Your task to perform on an android device: Find coffee shops on Maps Image 0: 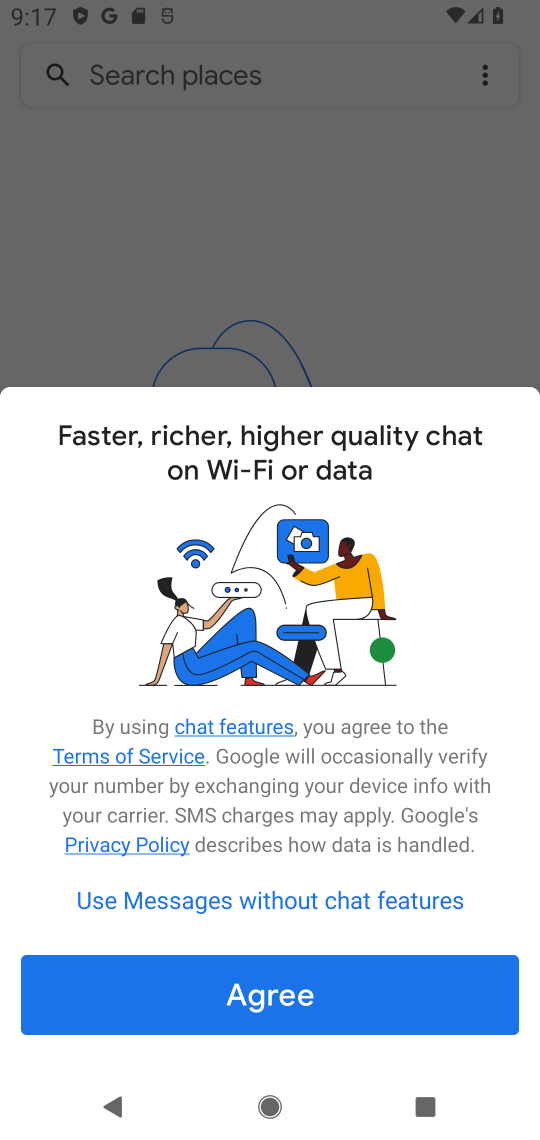
Step 0: press home button
Your task to perform on an android device: Find coffee shops on Maps Image 1: 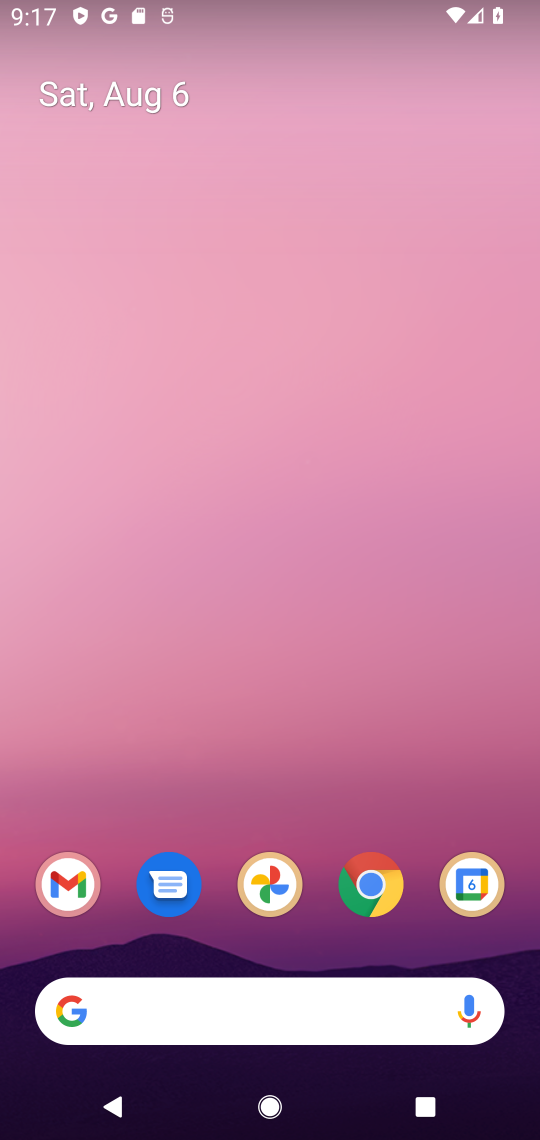
Step 1: drag from (329, 940) to (314, 150)
Your task to perform on an android device: Find coffee shops on Maps Image 2: 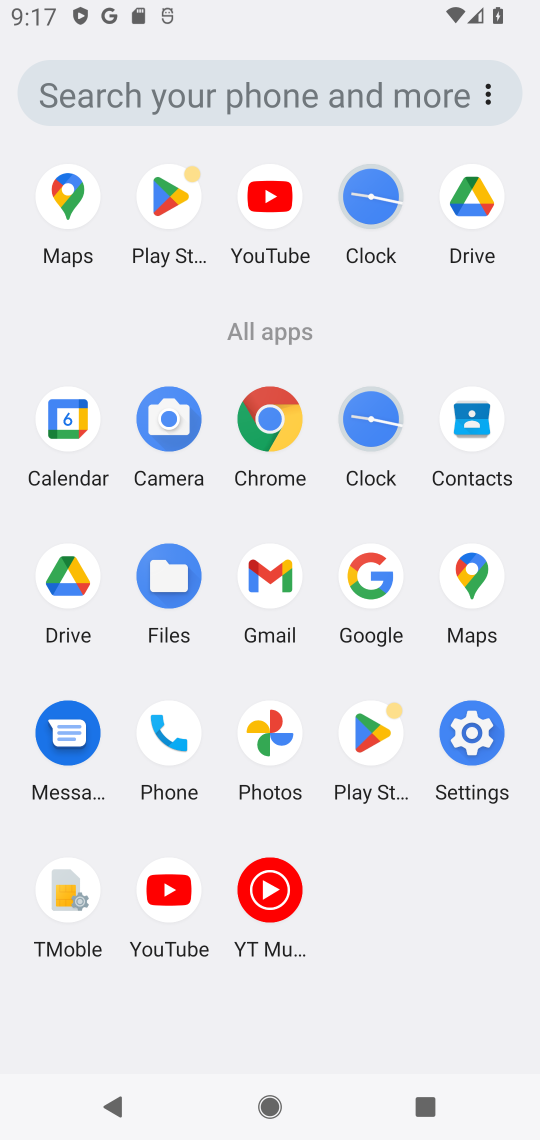
Step 2: click (469, 570)
Your task to perform on an android device: Find coffee shops on Maps Image 3: 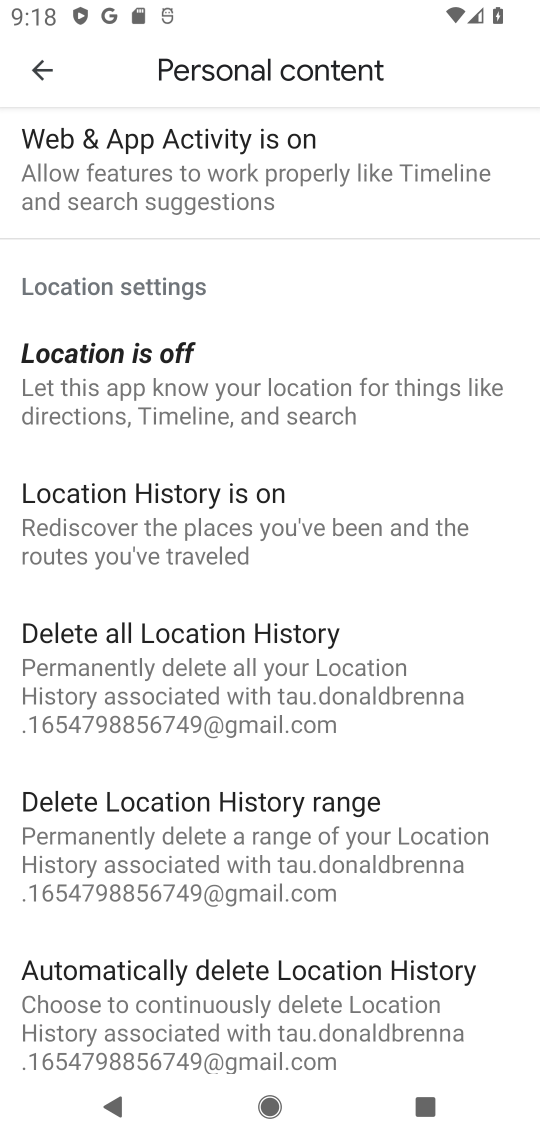
Step 3: press back button
Your task to perform on an android device: Find coffee shops on Maps Image 4: 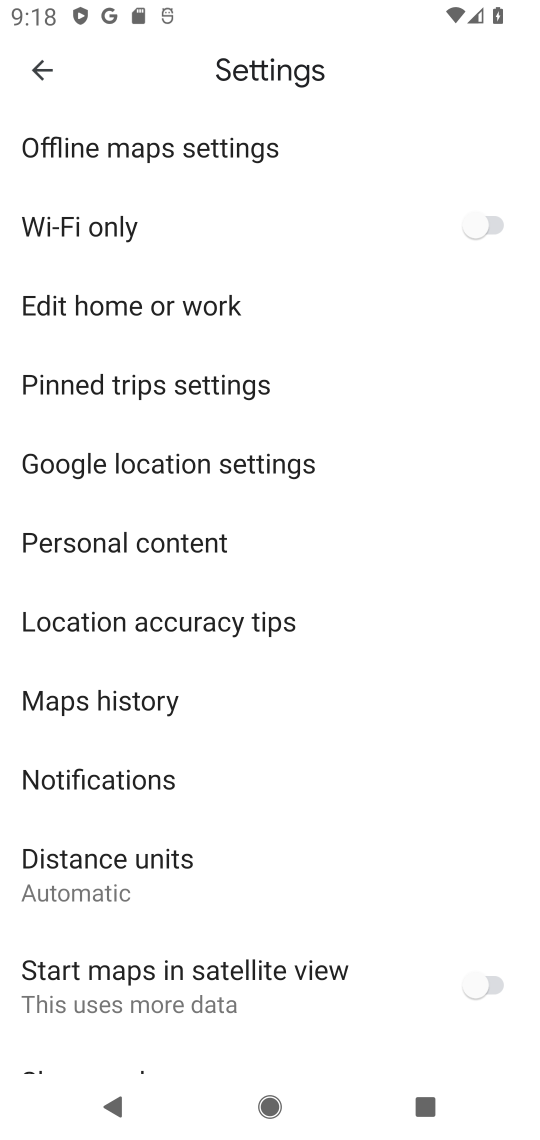
Step 4: press back button
Your task to perform on an android device: Find coffee shops on Maps Image 5: 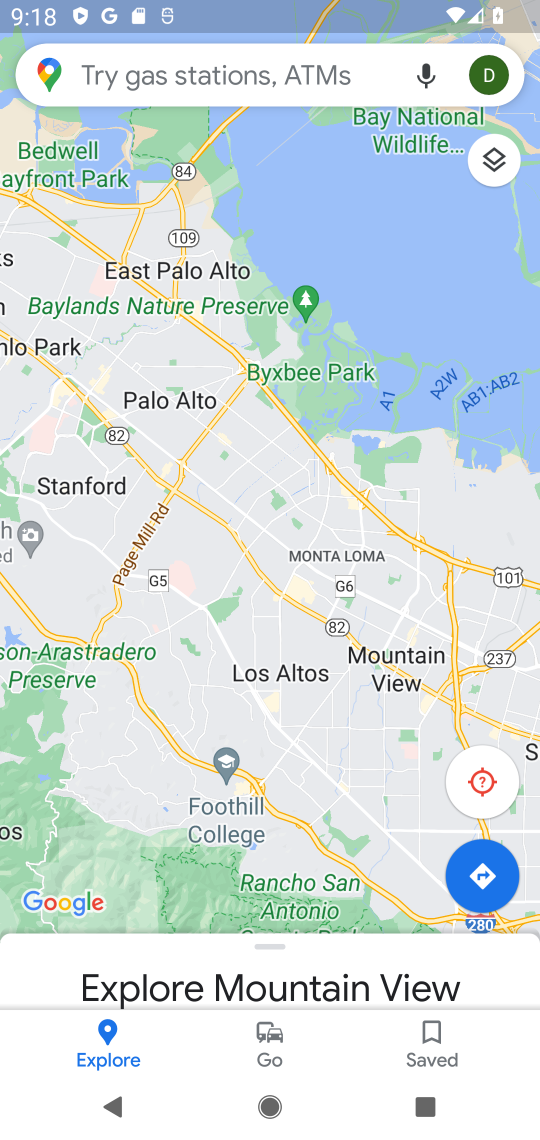
Step 5: click (176, 66)
Your task to perform on an android device: Find coffee shops on Maps Image 6: 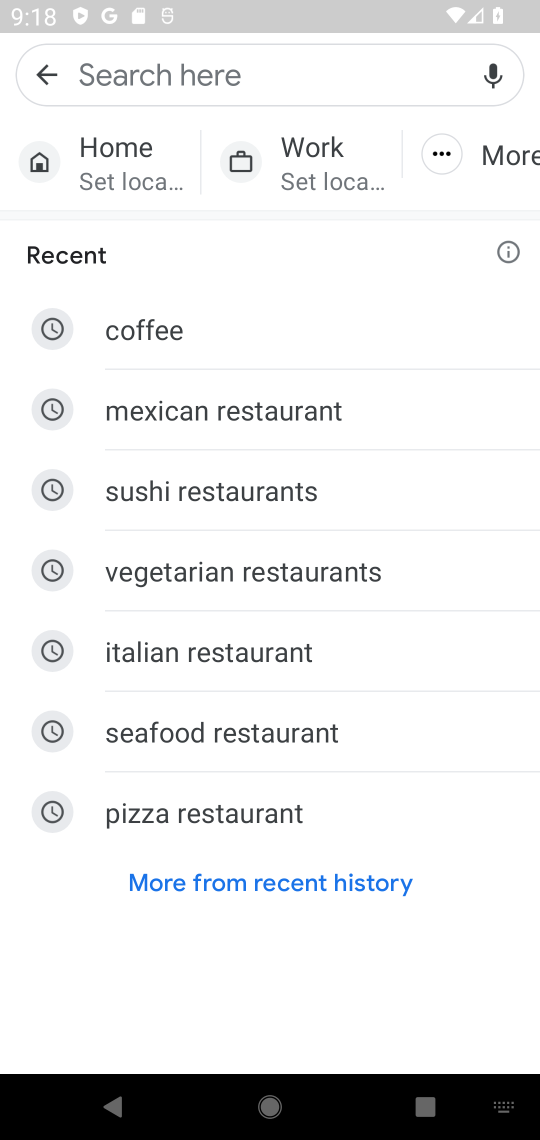
Step 6: type "coffee shops"
Your task to perform on an android device: Find coffee shops on Maps Image 7: 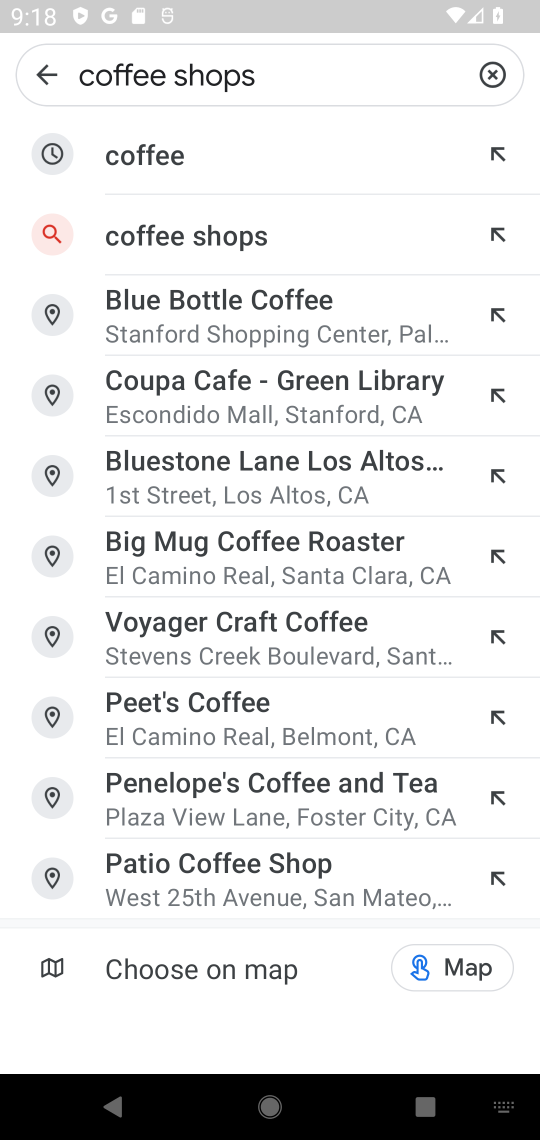
Step 7: click (179, 224)
Your task to perform on an android device: Find coffee shops on Maps Image 8: 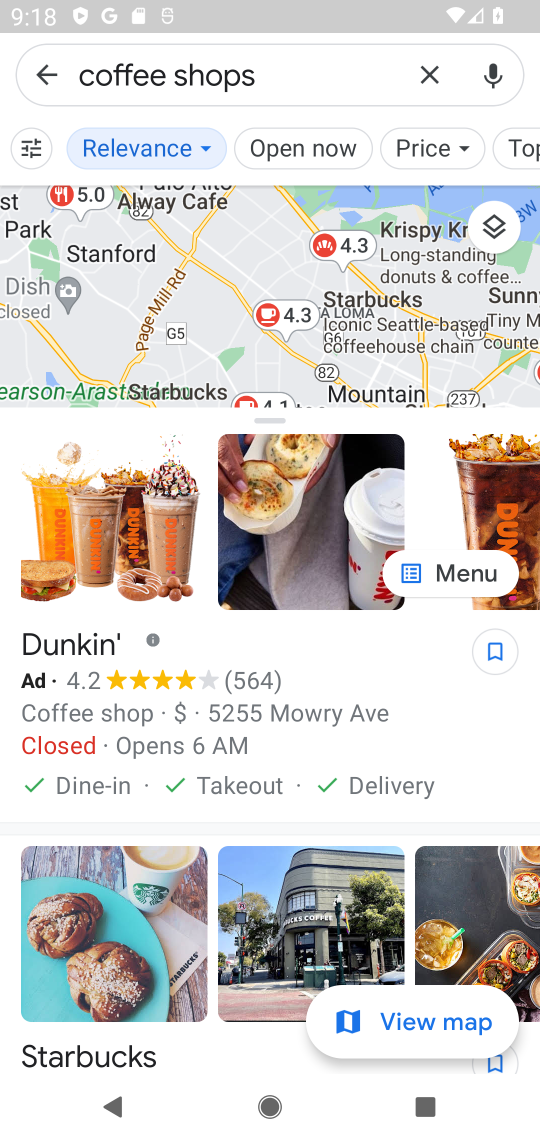
Step 8: task complete